Your task to perform on an android device: toggle data saver in the chrome app Image 0: 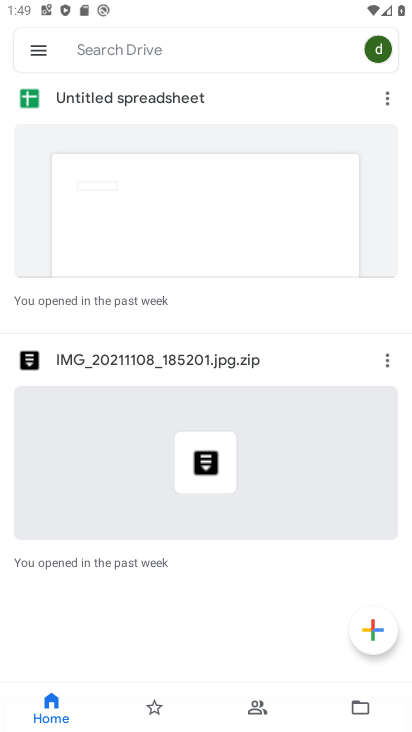
Step 0: press home button
Your task to perform on an android device: toggle data saver in the chrome app Image 1: 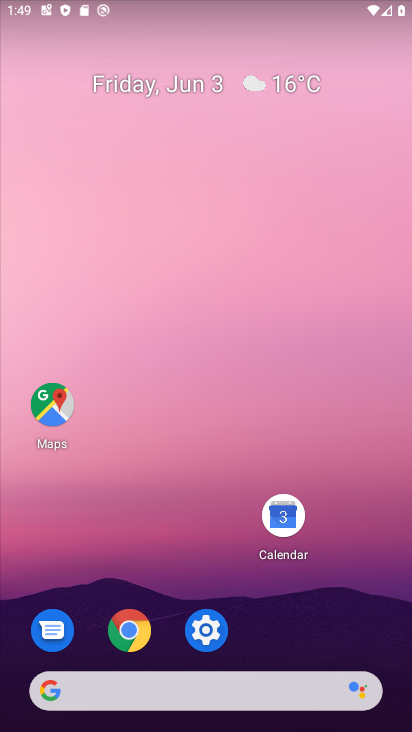
Step 1: drag from (228, 693) to (251, 232)
Your task to perform on an android device: toggle data saver in the chrome app Image 2: 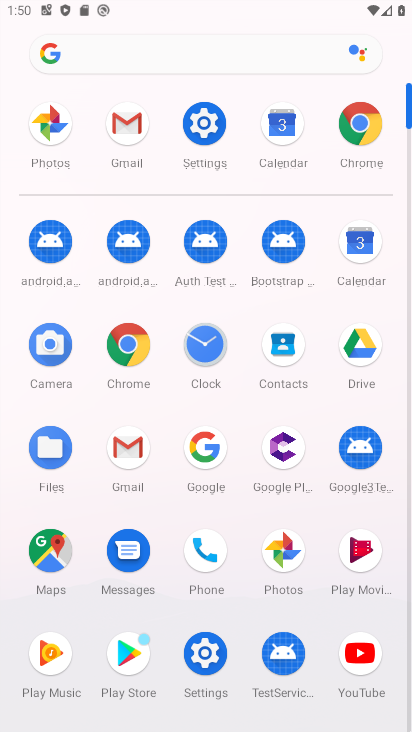
Step 2: click (133, 330)
Your task to perform on an android device: toggle data saver in the chrome app Image 3: 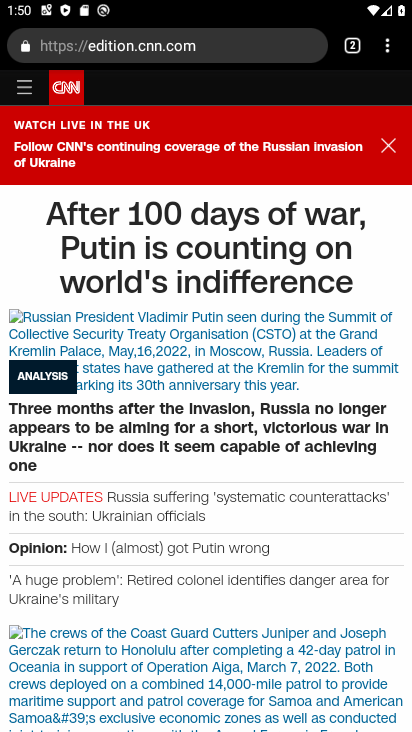
Step 3: click (379, 47)
Your task to perform on an android device: toggle data saver in the chrome app Image 4: 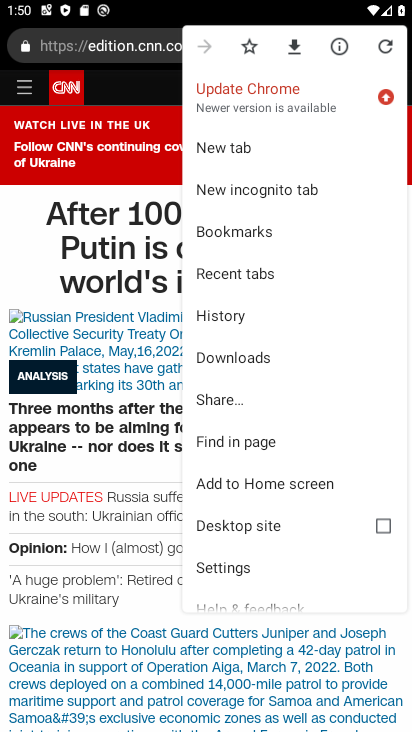
Step 4: click (237, 566)
Your task to perform on an android device: toggle data saver in the chrome app Image 5: 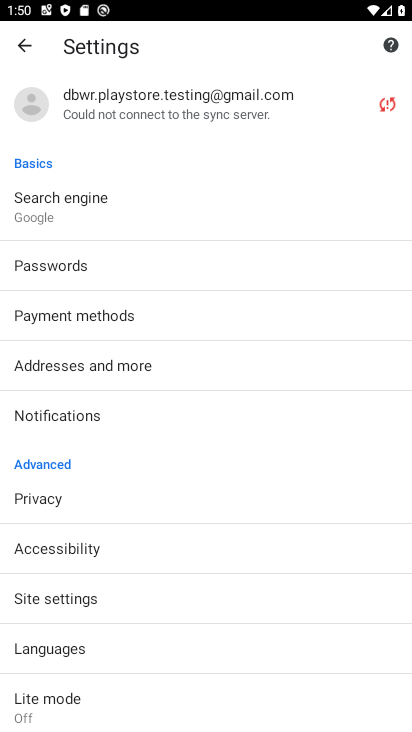
Step 5: click (61, 701)
Your task to perform on an android device: toggle data saver in the chrome app Image 6: 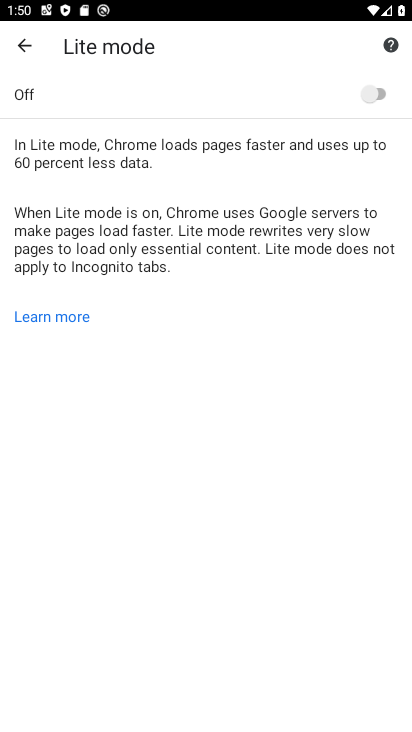
Step 6: click (370, 100)
Your task to perform on an android device: toggle data saver in the chrome app Image 7: 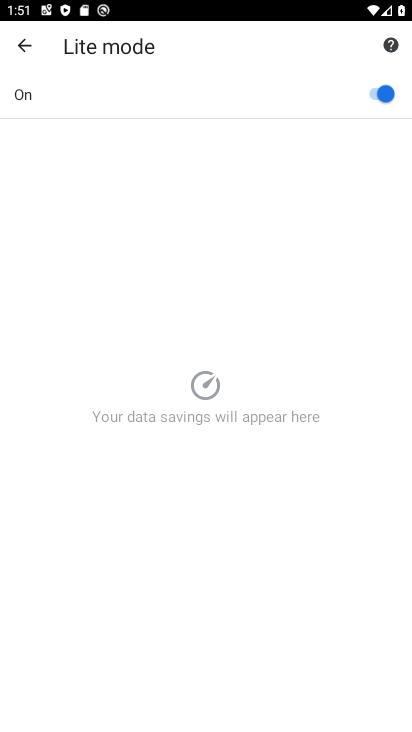
Step 7: task complete